Your task to perform on an android device: toggle wifi Image 0: 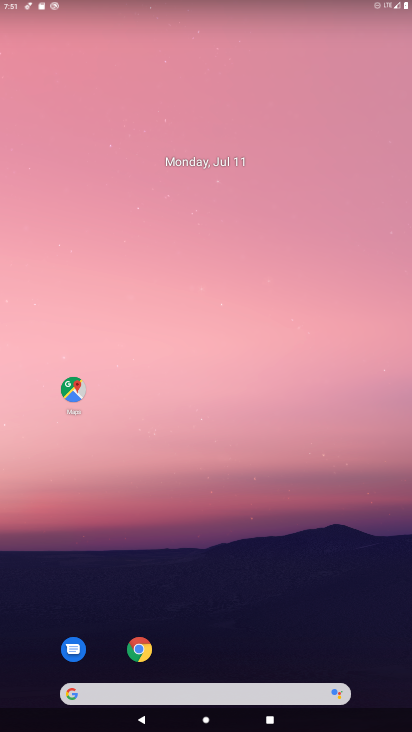
Step 0: drag from (205, 690) to (248, 130)
Your task to perform on an android device: toggle wifi Image 1: 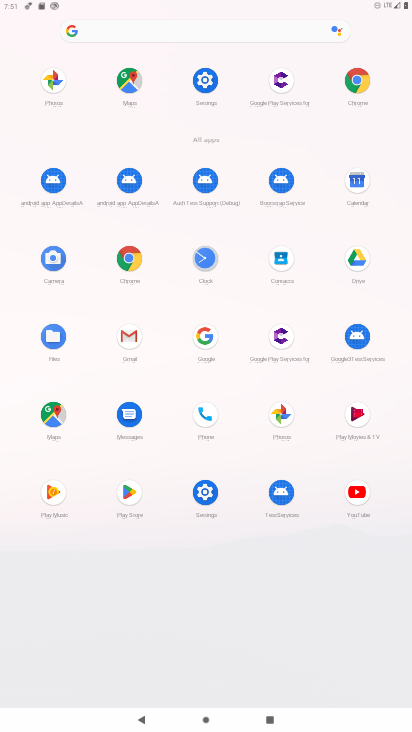
Step 1: click (206, 79)
Your task to perform on an android device: toggle wifi Image 2: 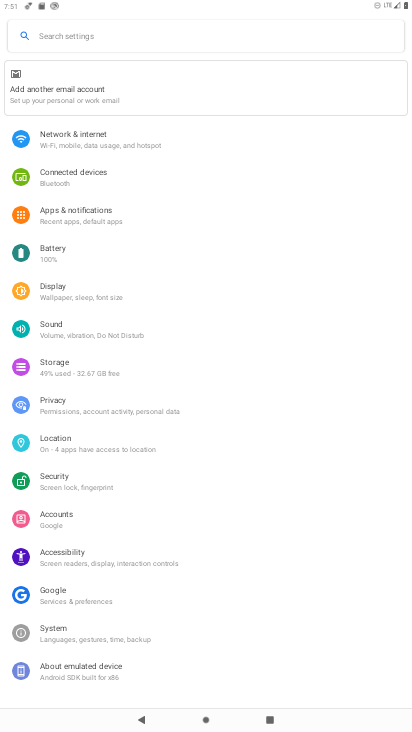
Step 2: click (132, 147)
Your task to perform on an android device: toggle wifi Image 3: 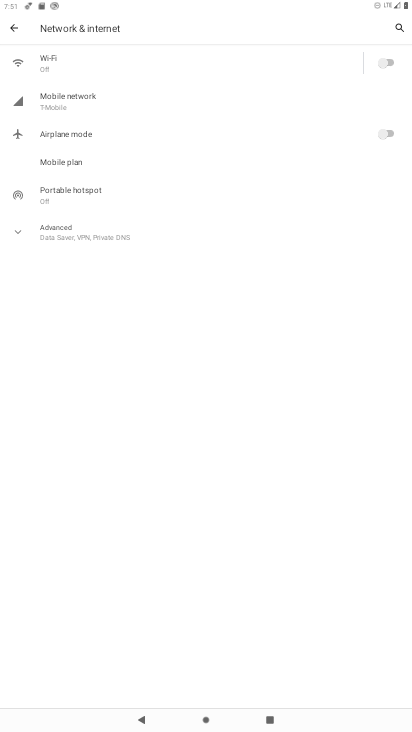
Step 3: click (384, 64)
Your task to perform on an android device: toggle wifi Image 4: 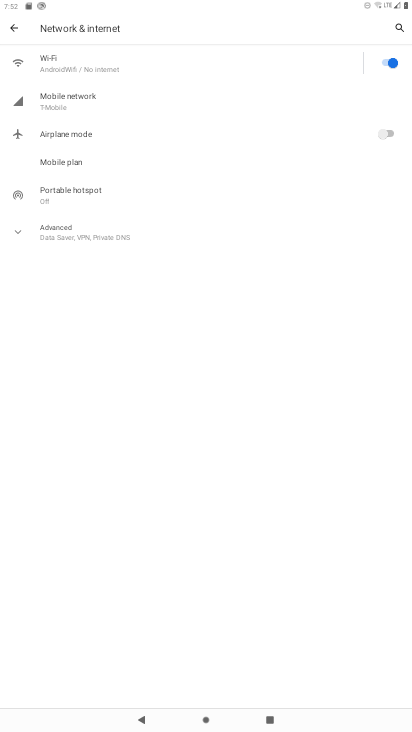
Step 4: task complete